Your task to perform on an android device: check data usage Image 0: 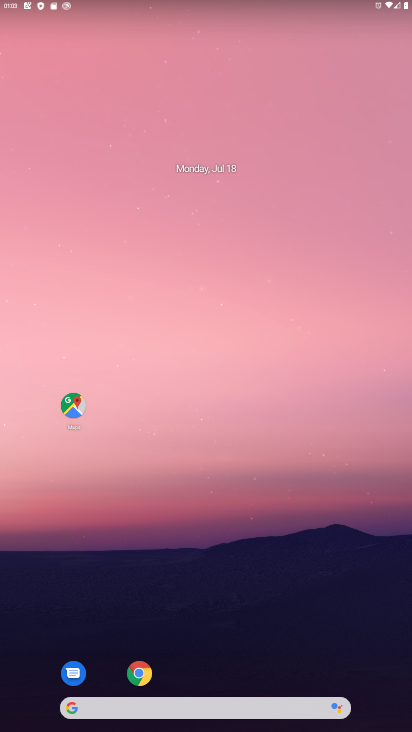
Step 0: drag from (259, 667) to (263, 1)
Your task to perform on an android device: check data usage Image 1: 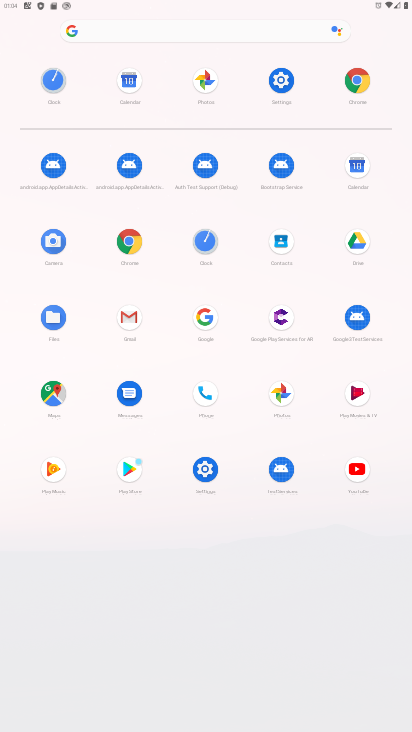
Step 1: click (283, 79)
Your task to perform on an android device: check data usage Image 2: 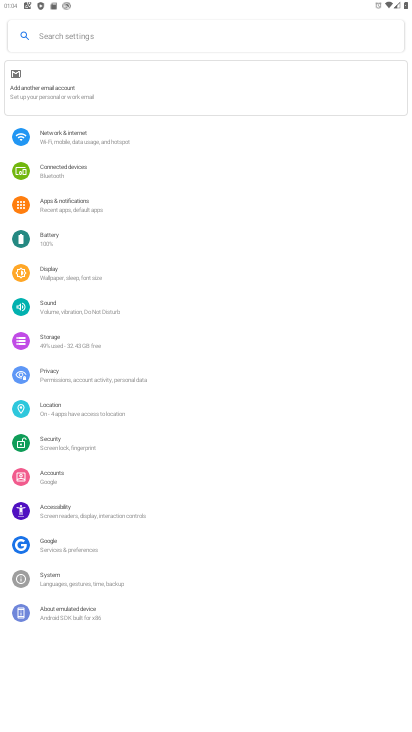
Step 2: click (125, 136)
Your task to perform on an android device: check data usage Image 3: 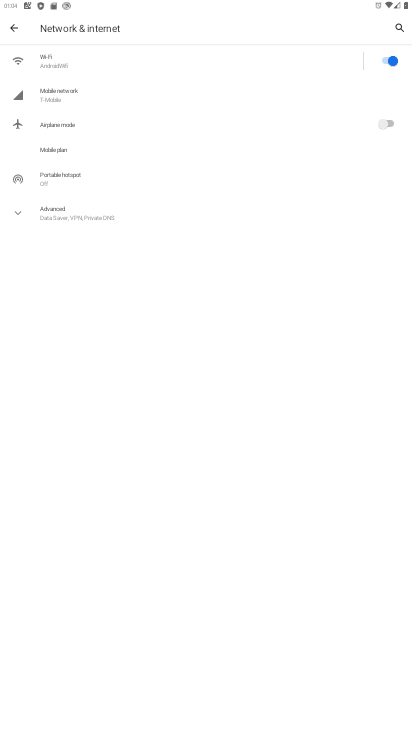
Step 3: task complete